Your task to perform on an android device: clear all cookies in the chrome app Image 0: 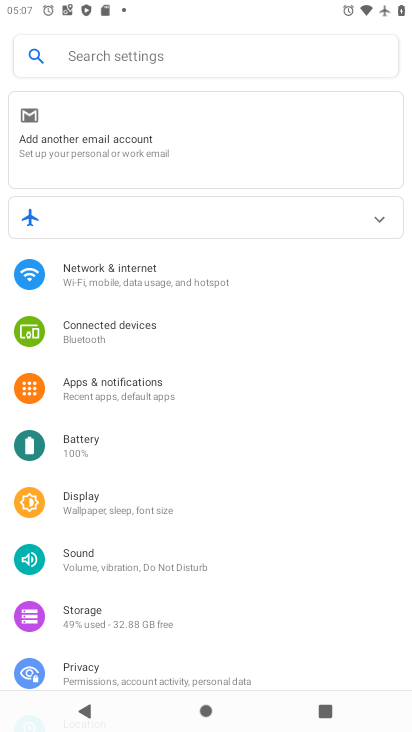
Step 0: press back button
Your task to perform on an android device: clear all cookies in the chrome app Image 1: 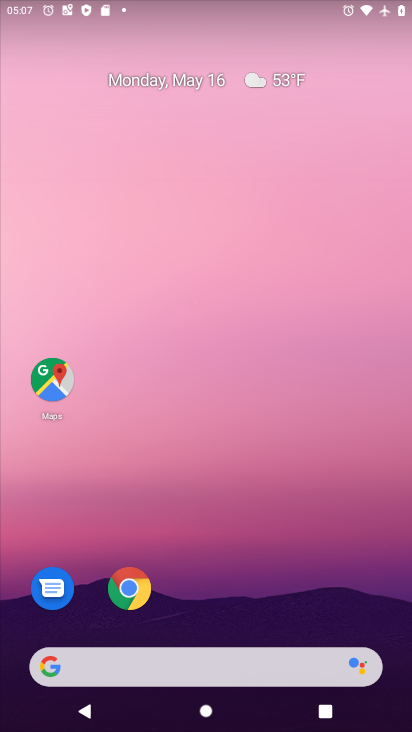
Step 1: drag from (232, 526) to (275, 20)
Your task to perform on an android device: clear all cookies in the chrome app Image 2: 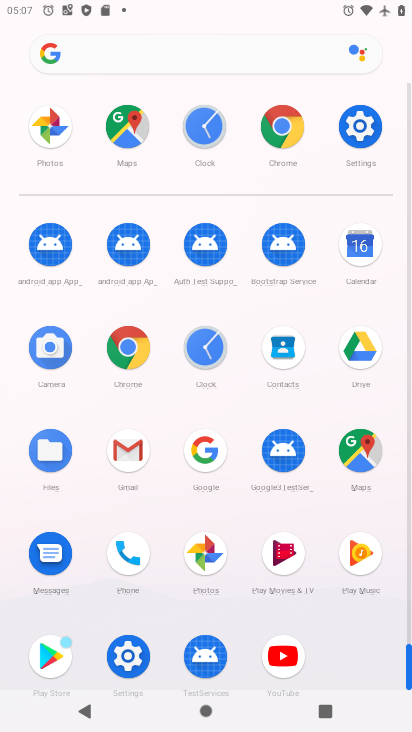
Step 2: click (129, 345)
Your task to perform on an android device: clear all cookies in the chrome app Image 3: 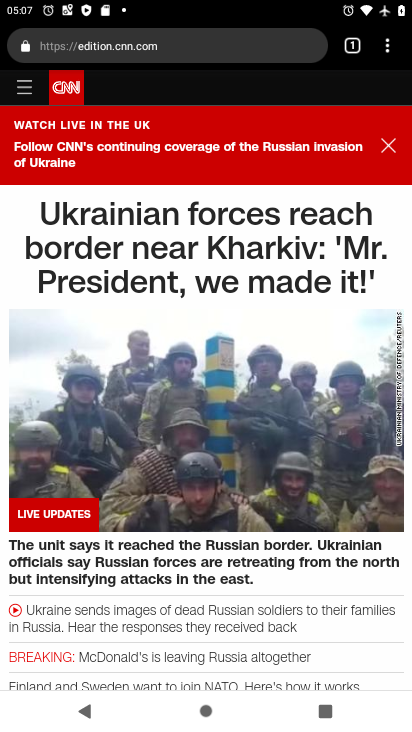
Step 3: drag from (385, 47) to (222, 495)
Your task to perform on an android device: clear all cookies in the chrome app Image 4: 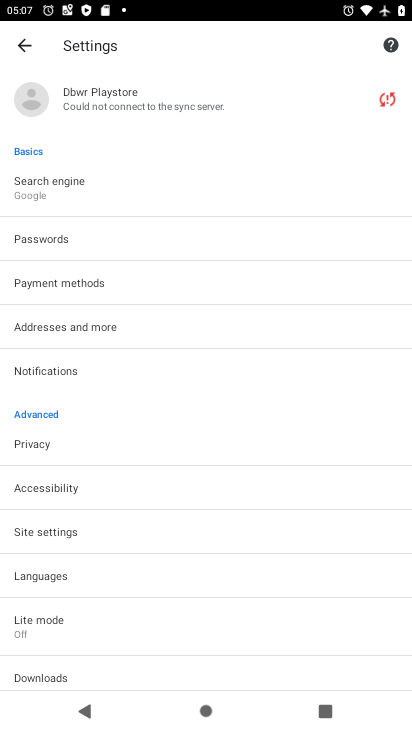
Step 4: click (90, 529)
Your task to perform on an android device: clear all cookies in the chrome app Image 5: 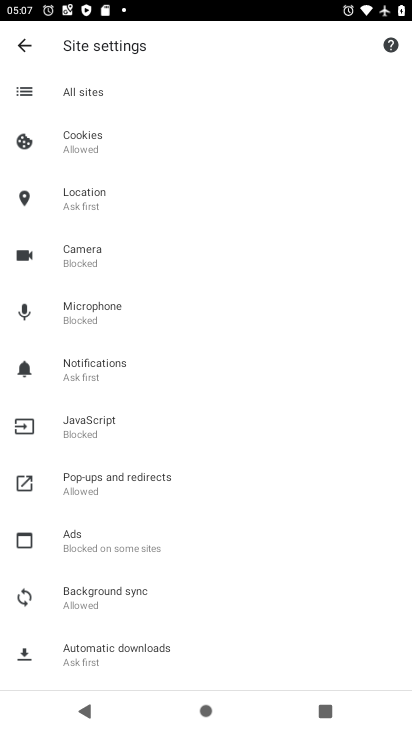
Step 5: drag from (163, 457) to (195, 107)
Your task to perform on an android device: clear all cookies in the chrome app Image 6: 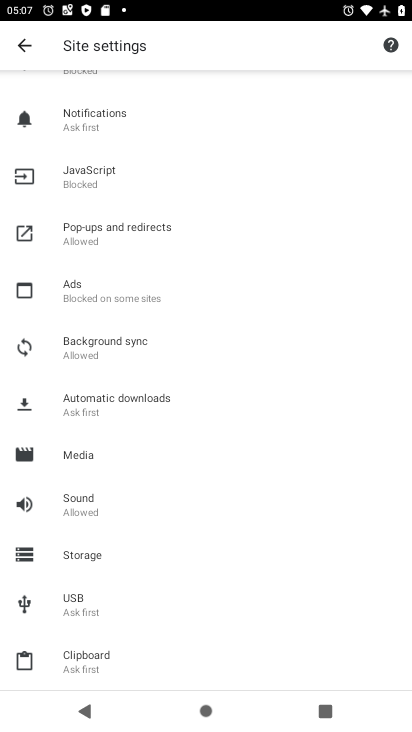
Step 6: drag from (162, 495) to (198, 143)
Your task to perform on an android device: clear all cookies in the chrome app Image 7: 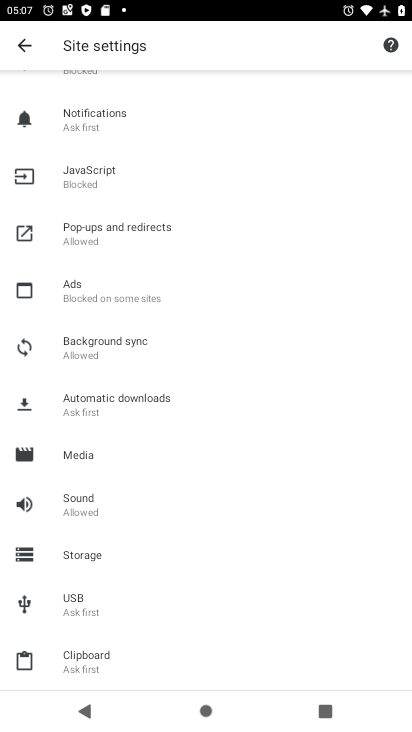
Step 7: drag from (175, 175) to (152, 393)
Your task to perform on an android device: clear all cookies in the chrome app Image 8: 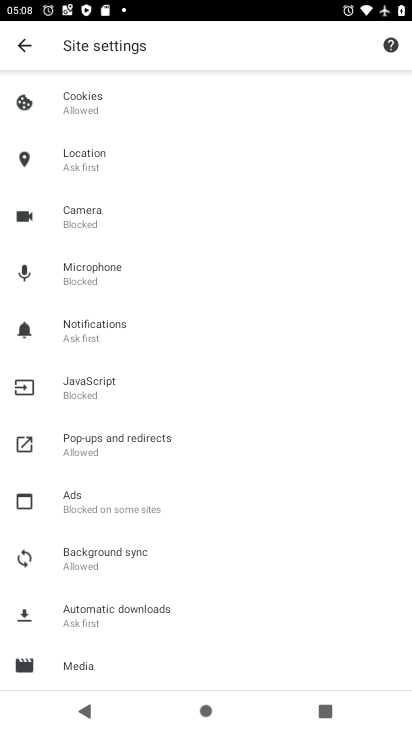
Step 8: click (139, 108)
Your task to perform on an android device: clear all cookies in the chrome app Image 9: 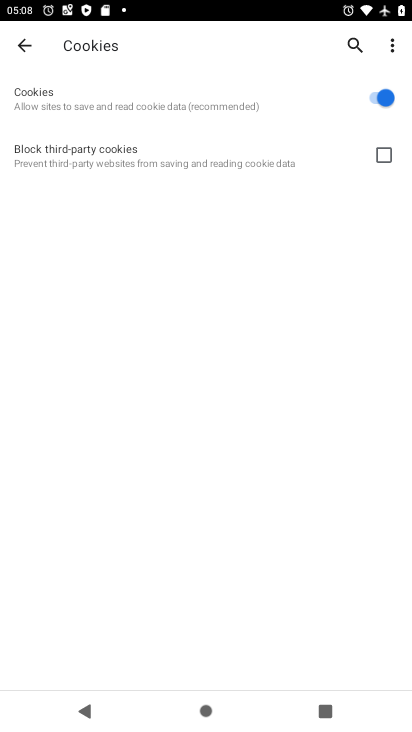
Step 9: click (24, 42)
Your task to perform on an android device: clear all cookies in the chrome app Image 10: 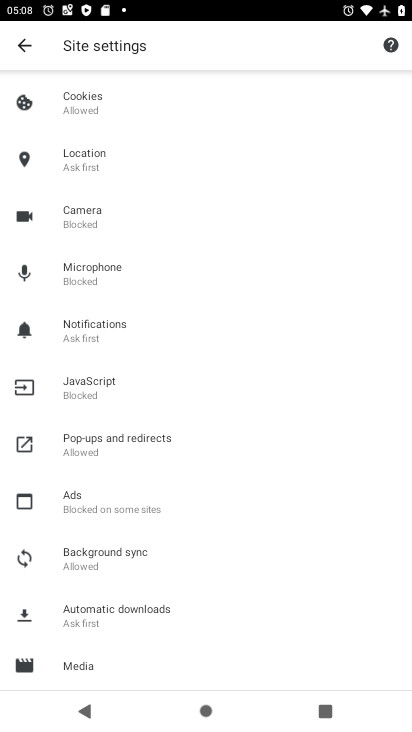
Step 10: drag from (145, 586) to (179, 247)
Your task to perform on an android device: clear all cookies in the chrome app Image 11: 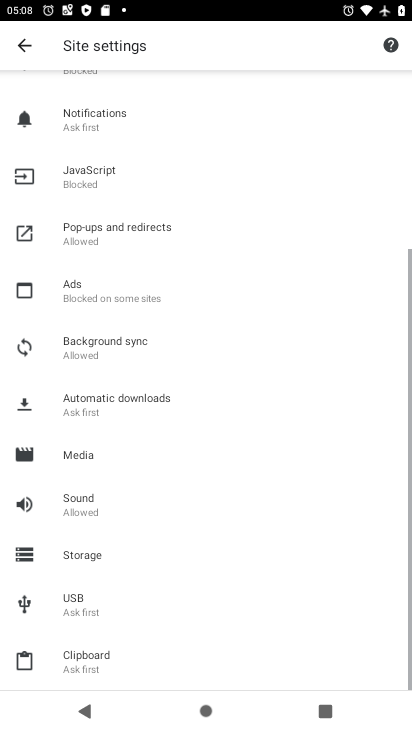
Step 11: click (17, 48)
Your task to perform on an android device: clear all cookies in the chrome app Image 12: 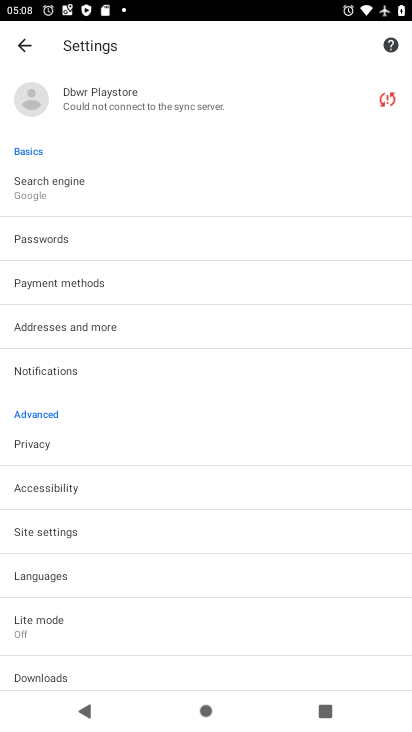
Step 12: click (47, 445)
Your task to perform on an android device: clear all cookies in the chrome app Image 13: 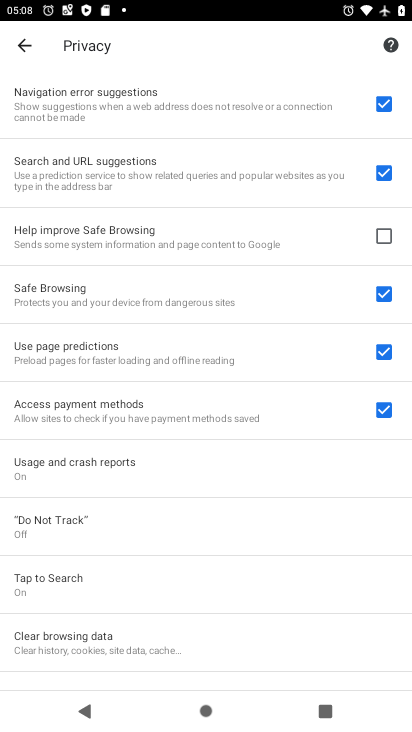
Step 13: drag from (163, 609) to (167, 234)
Your task to perform on an android device: clear all cookies in the chrome app Image 14: 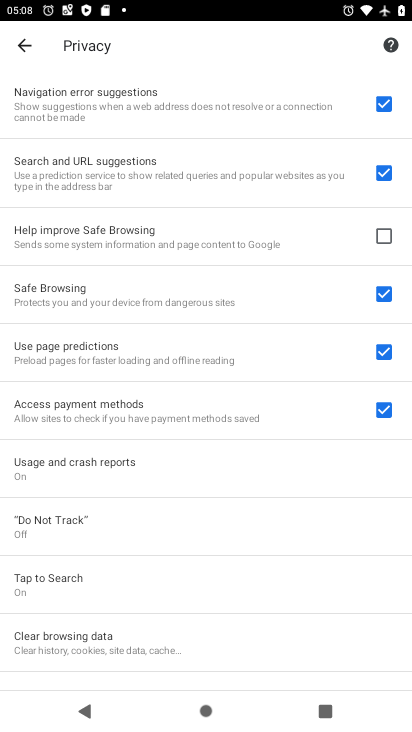
Step 14: click (100, 642)
Your task to perform on an android device: clear all cookies in the chrome app Image 15: 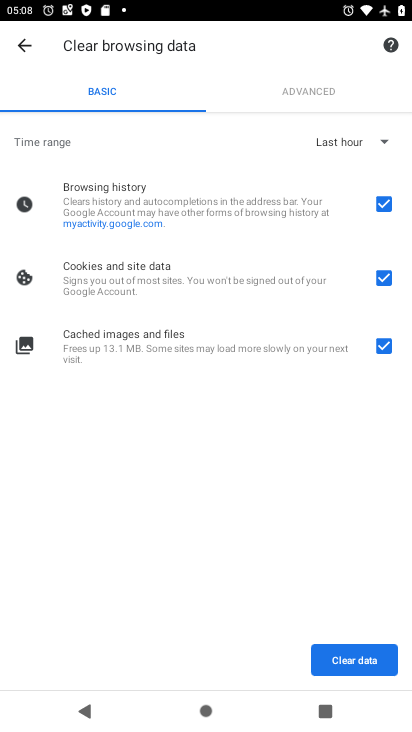
Step 15: click (346, 660)
Your task to perform on an android device: clear all cookies in the chrome app Image 16: 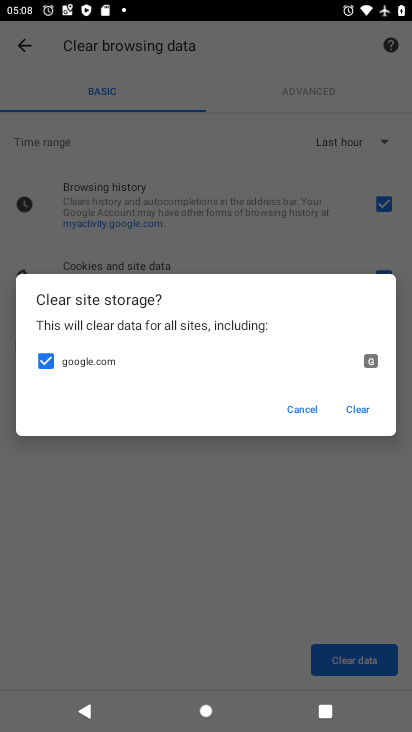
Step 16: click (358, 403)
Your task to perform on an android device: clear all cookies in the chrome app Image 17: 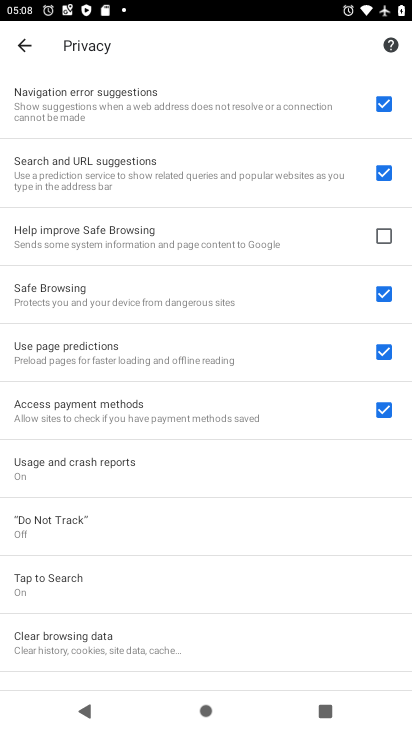
Step 17: task complete